Your task to perform on an android device: Clear the cart on walmart. Add "razer blackwidow" to the cart on walmart, then select checkout. Image 0: 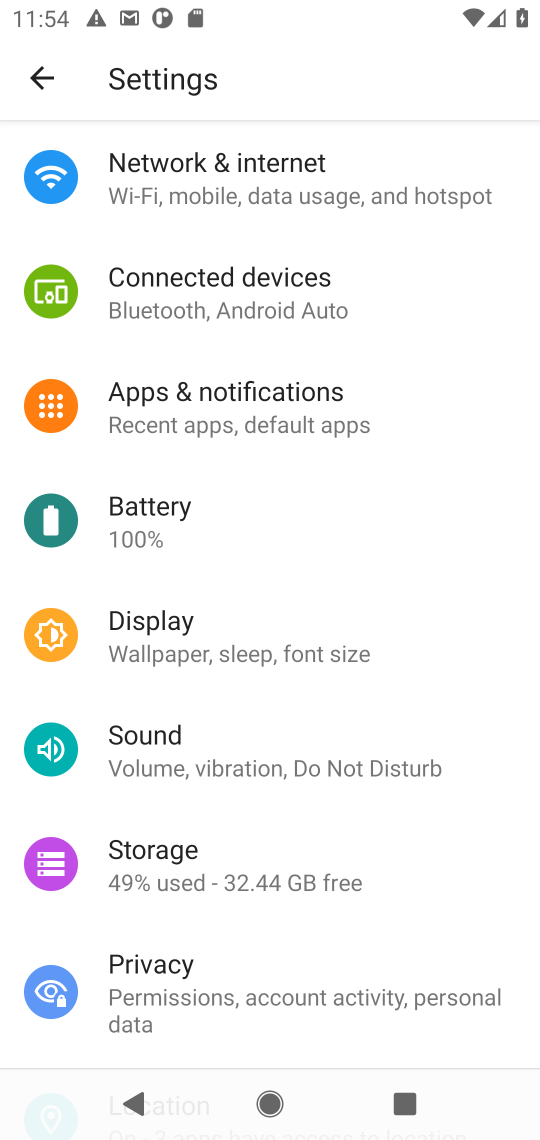
Step 0: press home button
Your task to perform on an android device: Clear the cart on walmart. Add "razer blackwidow" to the cart on walmart, then select checkout. Image 1: 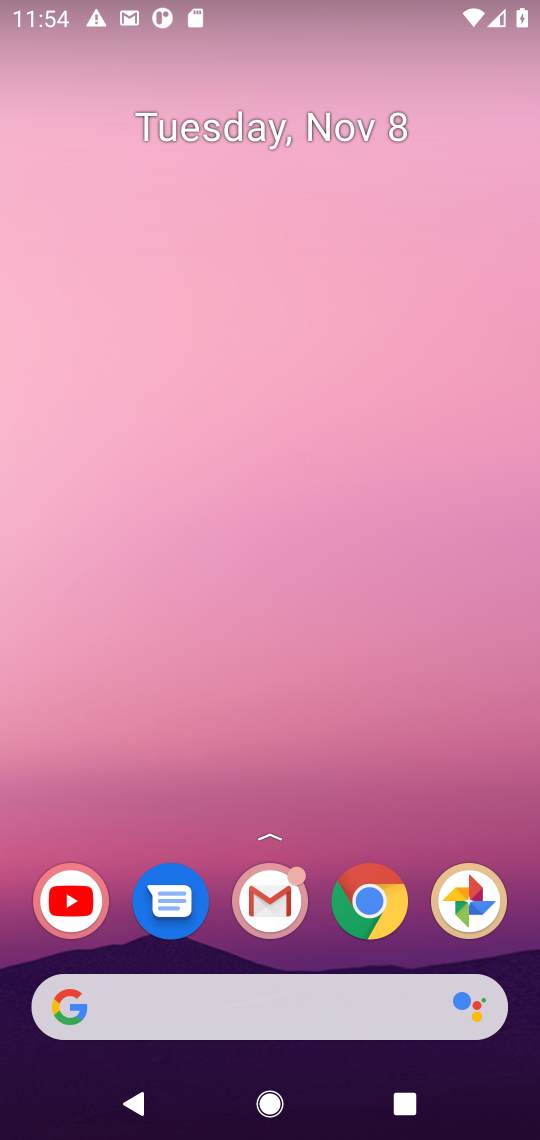
Step 1: click (387, 881)
Your task to perform on an android device: Clear the cart on walmart. Add "razer blackwidow" to the cart on walmart, then select checkout. Image 2: 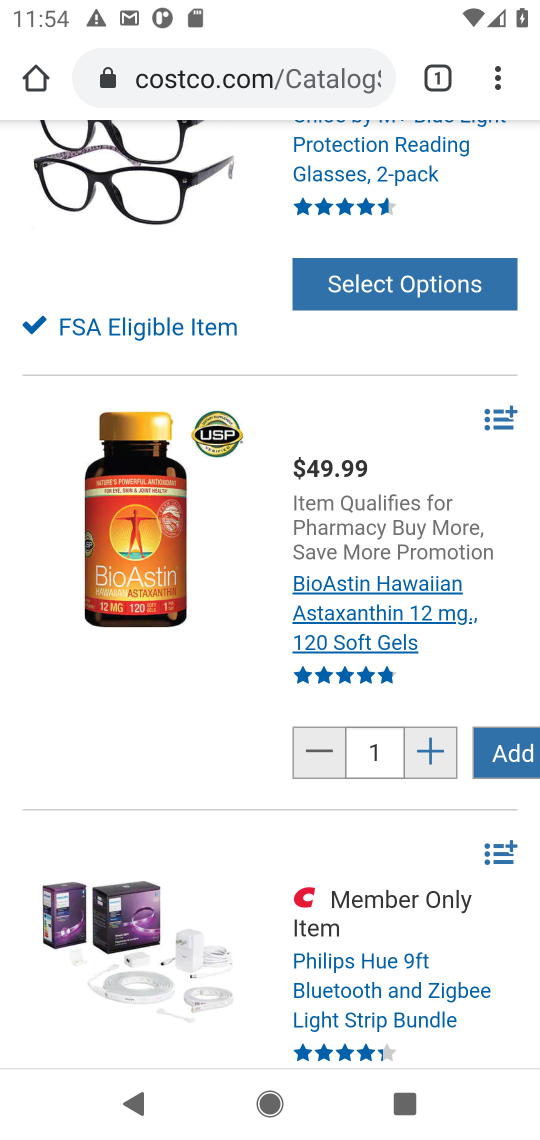
Step 2: click (342, 89)
Your task to perform on an android device: Clear the cart on walmart. Add "razer blackwidow" to the cart on walmart, then select checkout. Image 3: 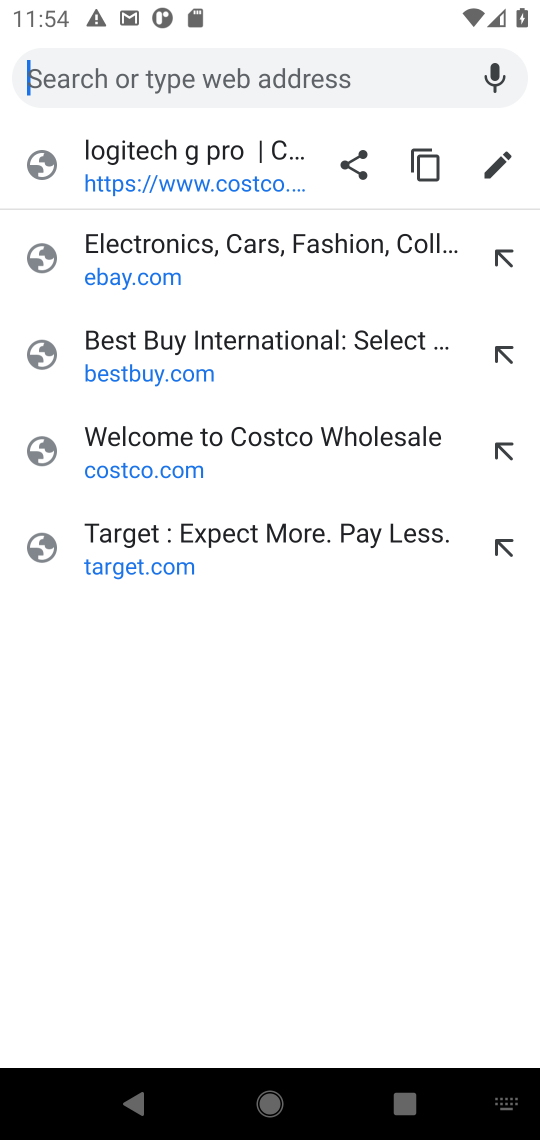
Step 3: type "walmart"
Your task to perform on an android device: Clear the cart on walmart. Add "razer blackwidow" to the cart on walmart, then select checkout. Image 4: 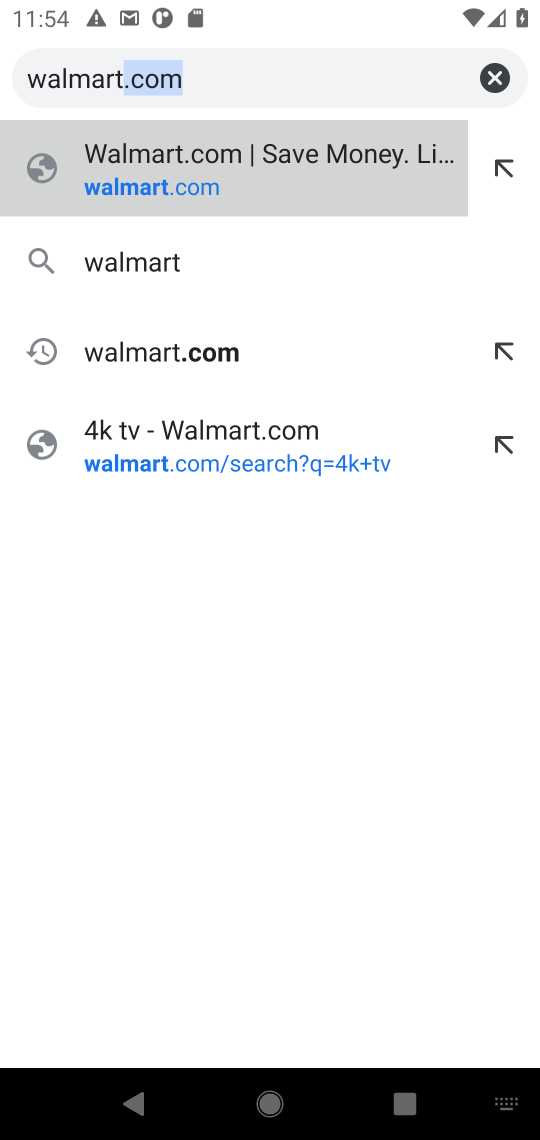
Step 4: press enter
Your task to perform on an android device: Clear the cart on walmart. Add "razer blackwidow" to the cart on walmart, then select checkout. Image 5: 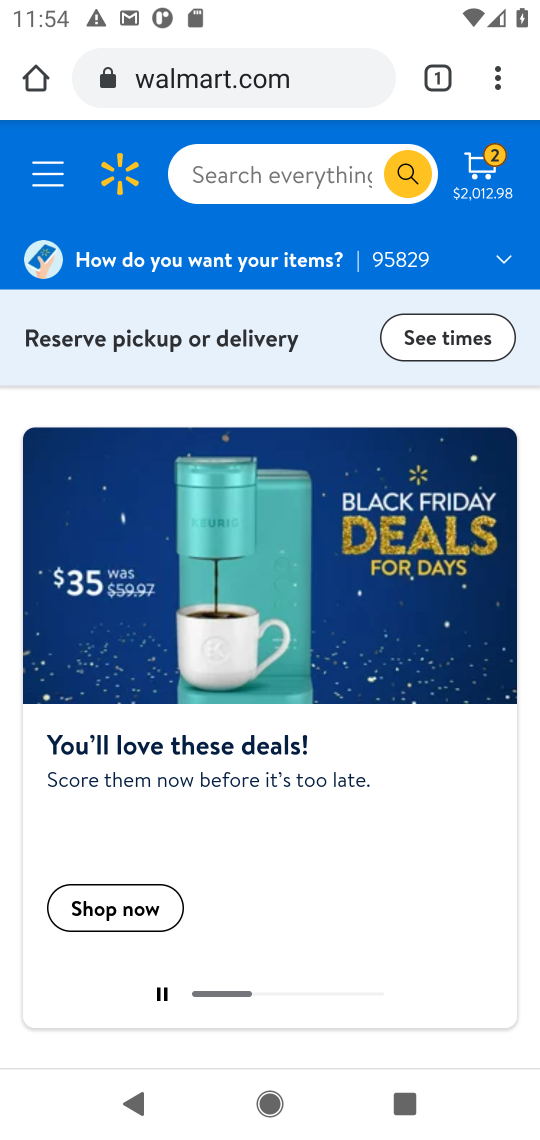
Step 5: click (482, 193)
Your task to perform on an android device: Clear the cart on walmart. Add "razer blackwidow" to the cart on walmart, then select checkout. Image 6: 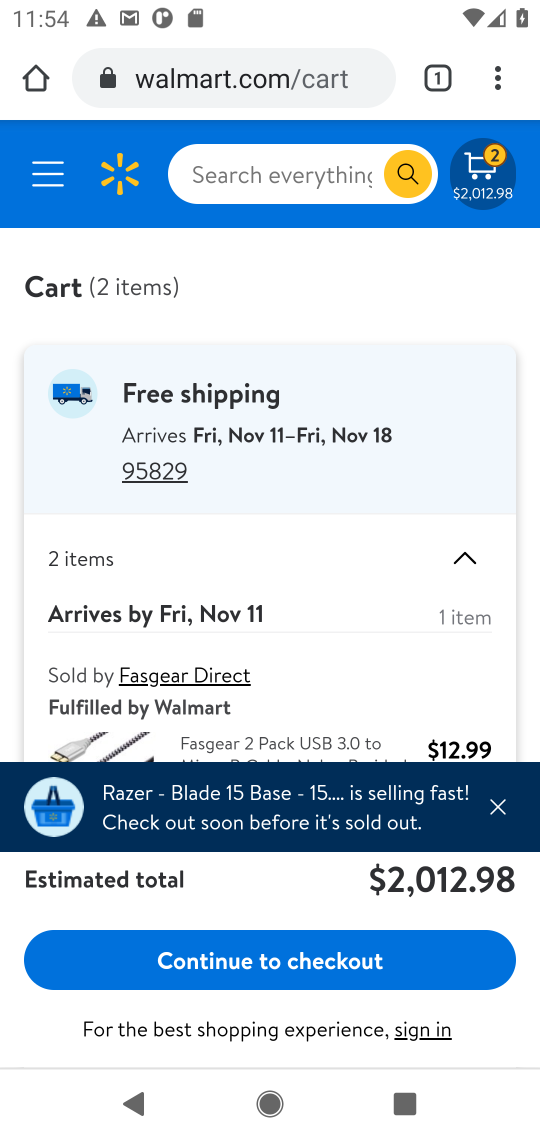
Step 6: click (505, 811)
Your task to perform on an android device: Clear the cart on walmart. Add "razer blackwidow" to the cart on walmart, then select checkout. Image 7: 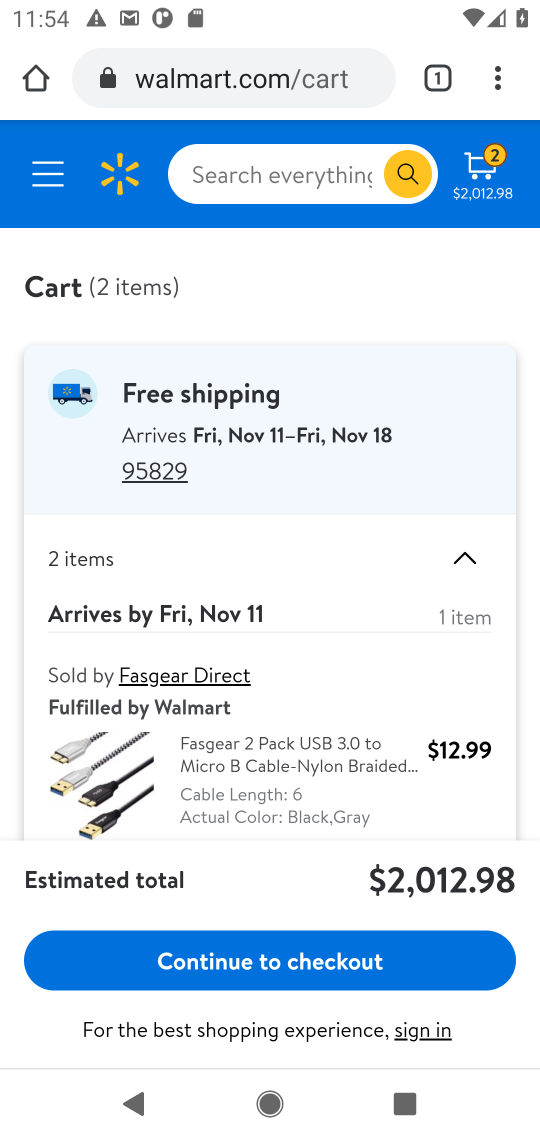
Step 7: drag from (347, 796) to (438, 235)
Your task to perform on an android device: Clear the cart on walmart. Add "razer blackwidow" to the cart on walmart, then select checkout. Image 8: 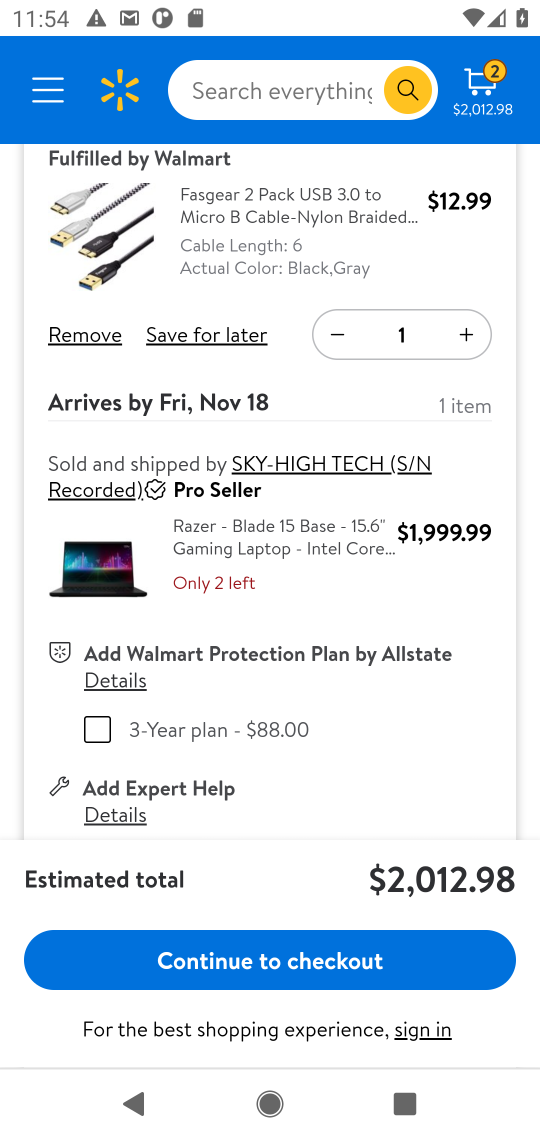
Step 8: click (100, 333)
Your task to perform on an android device: Clear the cart on walmart. Add "razer blackwidow" to the cart on walmart, then select checkout. Image 9: 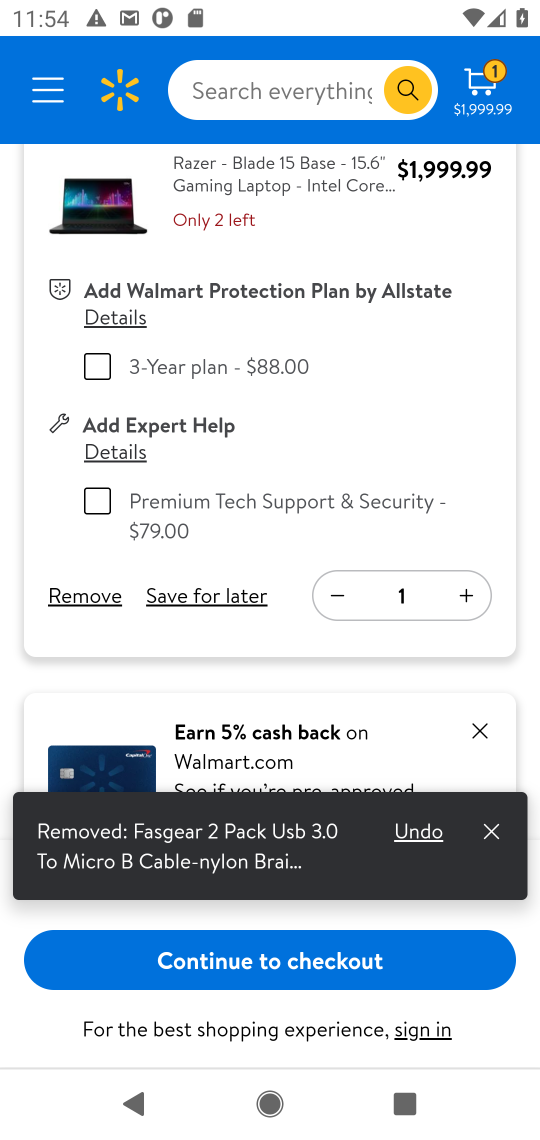
Step 9: click (103, 591)
Your task to perform on an android device: Clear the cart on walmart. Add "razer blackwidow" to the cart on walmart, then select checkout. Image 10: 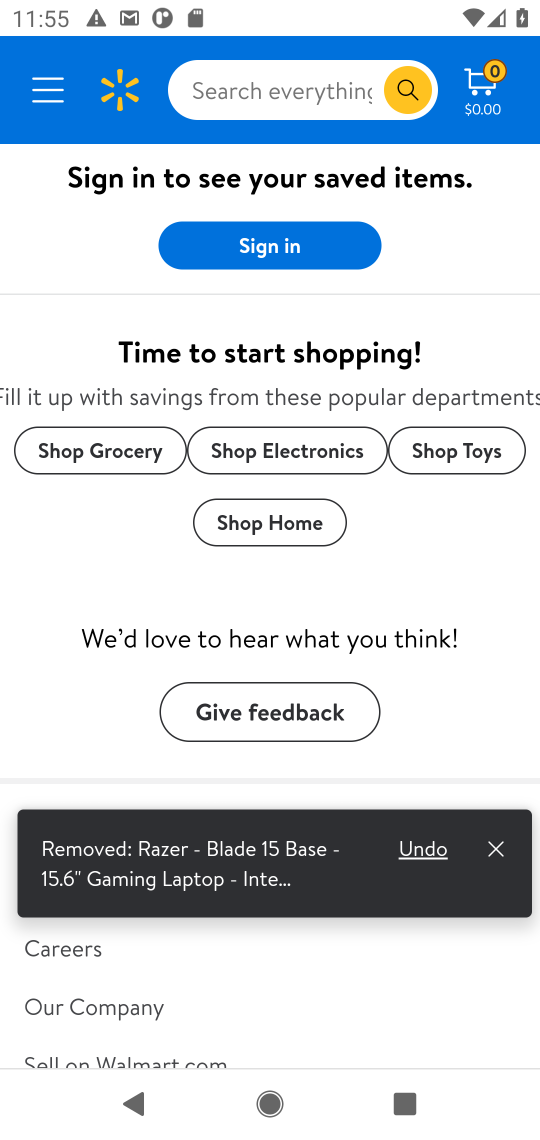
Step 10: click (318, 72)
Your task to perform on an android device: Clear the cart on walmart. Add "razer blackwidow" to the cart on walmart, then select checkout. Image 11: 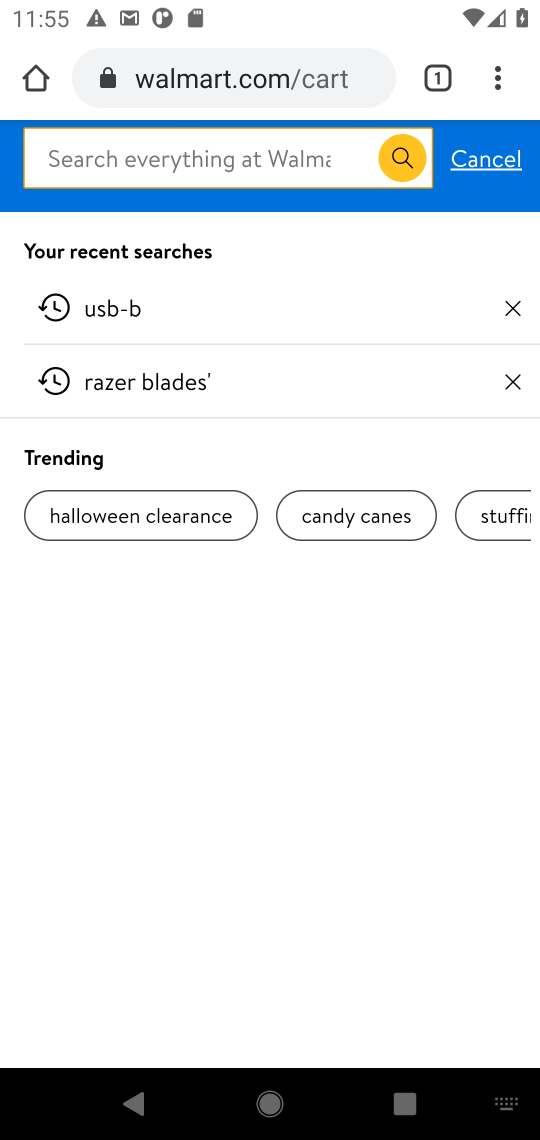
Step 11: type "razer blackwidow"
Your task to perform on an android device: Clear the cart on walmart. Add "razer blackwidow" to the cart on walmart, then select checkout. Image 12: 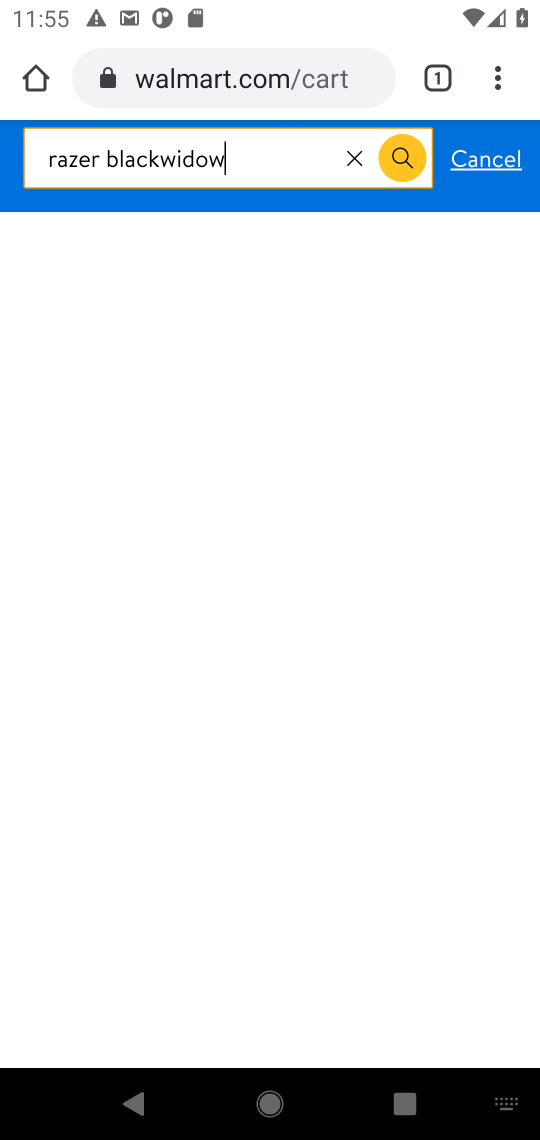
Step 12: press enter
Your task to perform on an android device: Clear the cart on walmart. Add "razer blackwidow" to the cart on walmart, then select checkout. Image 13: 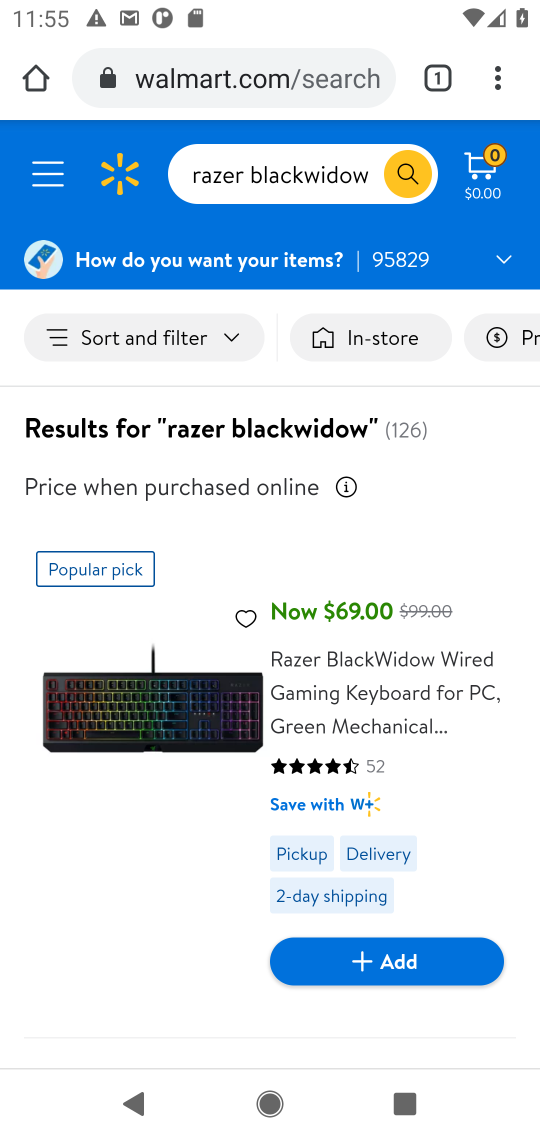
Step 13: click (173, 705)
Your task to perform on an android device: Clear the cart on walmart. Add "razer blackwidow" to the cart on walmart, then select checkout. Image 14: 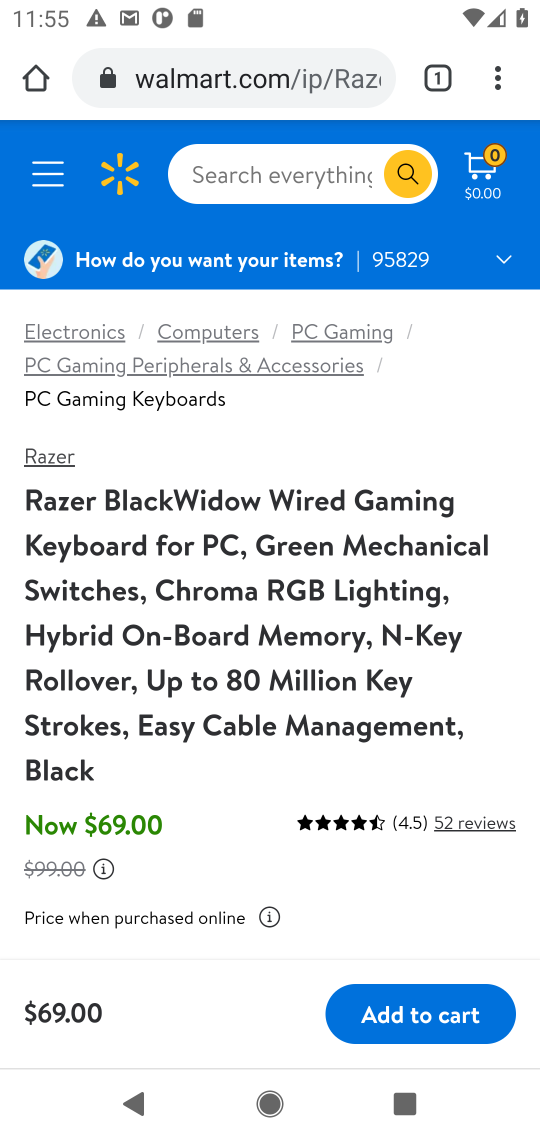
Step 14: click (441, 1011)
Your task to perform on an android device: Clear the cart on walmart. Add "razer blackwidow" to the cart on walmart, then select checkout. Image 15: 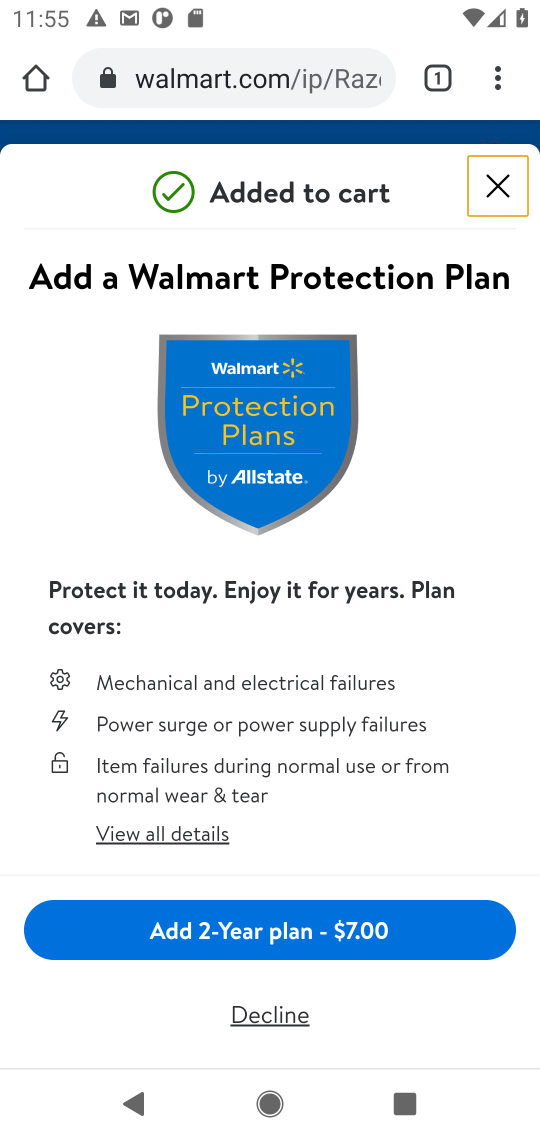
Step 15: click (488, 199)
Your task to perform on an android device: Clear the cart on walmart. Add "razer blackwidow" to the cart on walmart, then select checkout. Image 16: 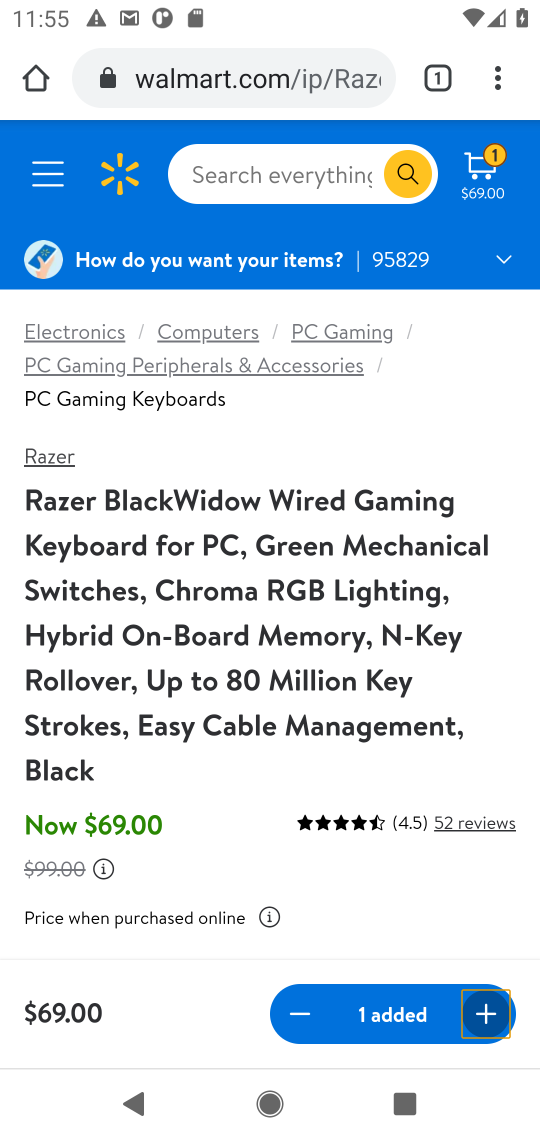
Step 16: click (485, 185)
Your task to perform on an android device: Clear the cart on walmart. Add "razer blackwidow" to the cart on walmart, then select checkout. Image 17: 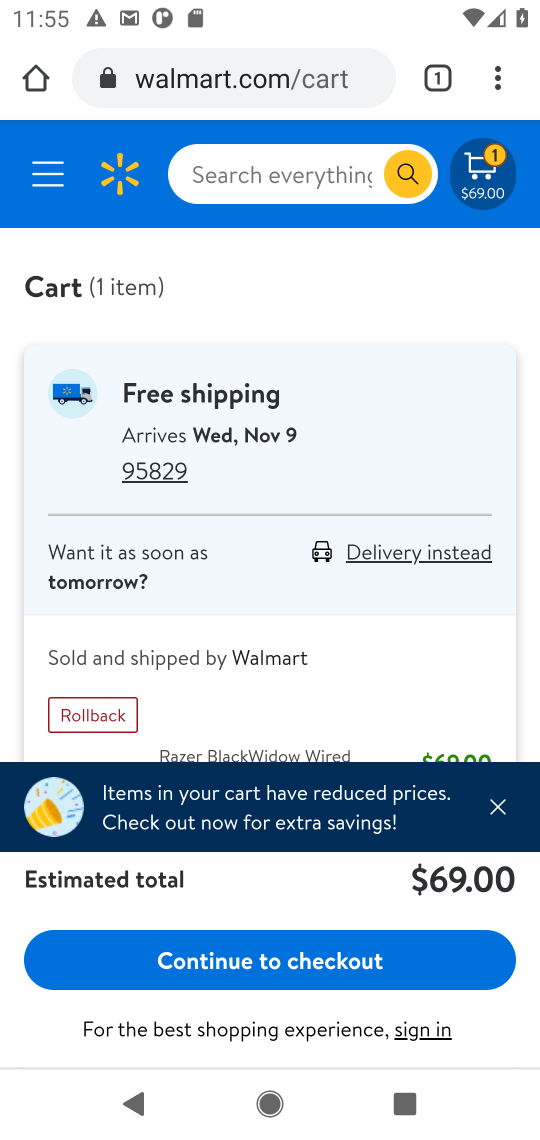
Step 17: click (347, 957)
Your task to perform on an android device: Clear the cart on walmart. Add "razer blackwidow" to the cart on walmart, then select checkout. Image 18: 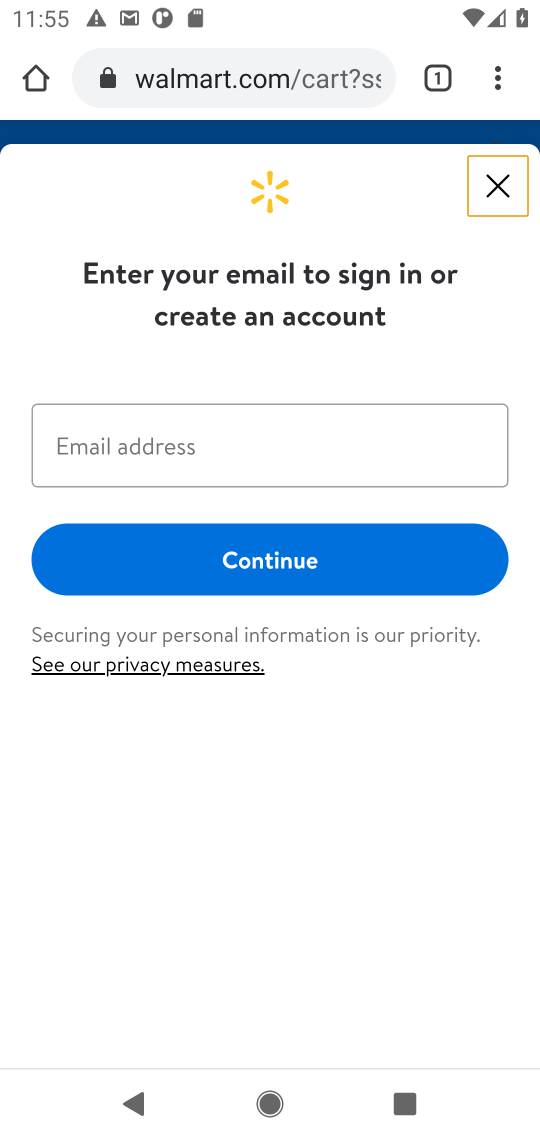
Step 18: task complete